Your task to perform on an android device: Open Google Chrome and click the shortcut for Amazon.com Image 0: 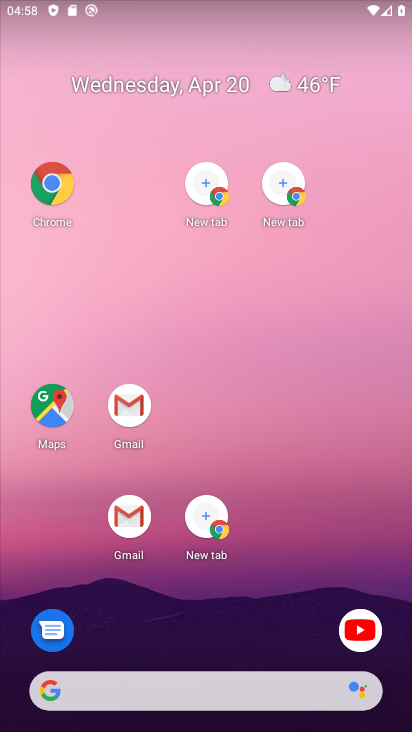
Step 0: drag from (255, 562) to (140, 88)
Your task to perform on an android device: Open Google Chrome and click the shortcut for Amazon.com Image 1: 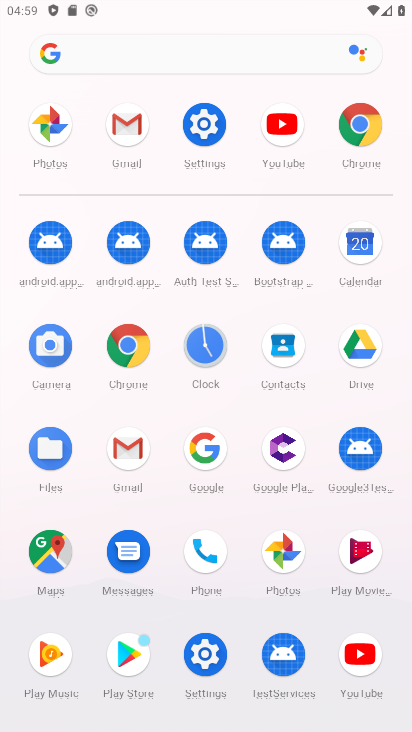
Step 1: click (362, 89)
Your task to perform on an android device: Open Google Chrome and click the shortcut for Amazon.com Image 2: 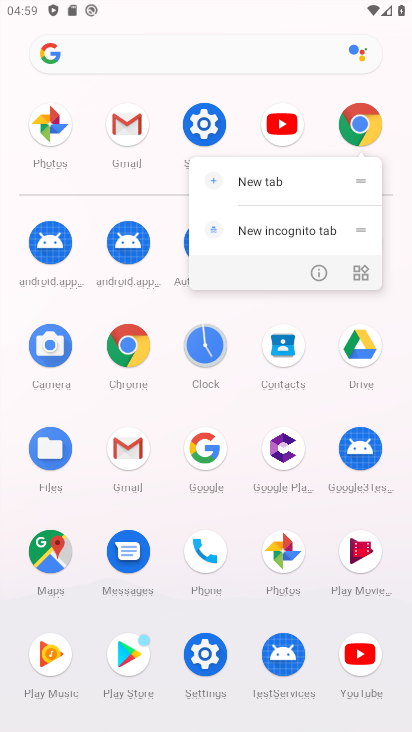
Step 2: click (361, 113)
Your task to perform on an android device: Open Google Chrome and click the shortcut for Amazon.com Image 3: 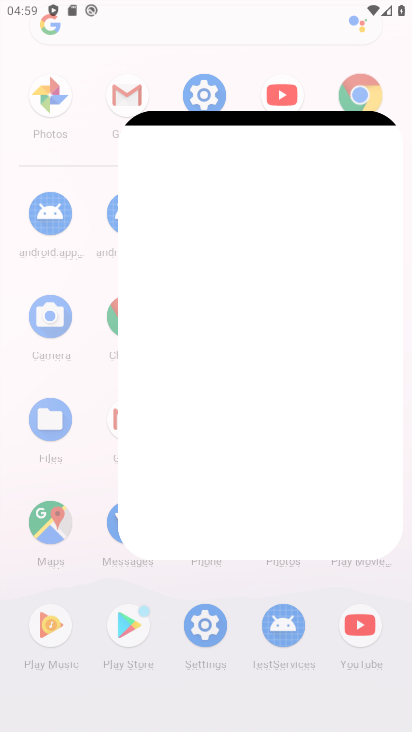
Step 3: click (361, 113)
Your task to perform on an android device: Open Google Chrome and click the shortcut for Amazon.com Image 4: 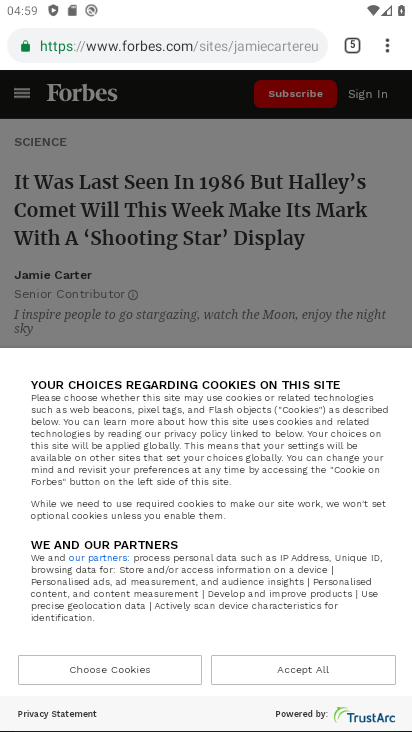
Step 4: drag from (387, 47) to (222, 620)
Your task to perform on an android device: Open Google Chrome and click the shortcut for Amazon.com Image 5: 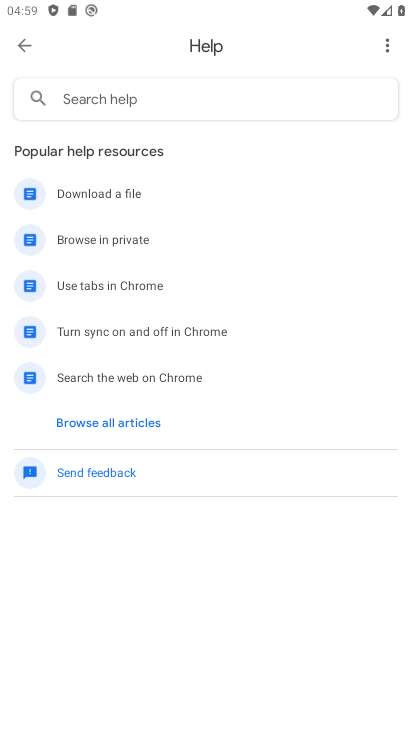
Step 5: press home button
Your task to perform on an android device: Open Google Chrome and click the shortcut for Amazon.com Image 6: 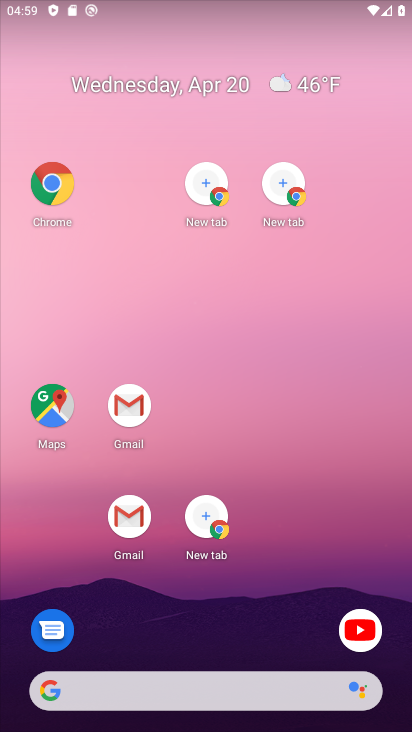
Step 6: drag from (281, 388) to (255, 4)
Your task to perform on an android device: Open Google Chrome and click the shortcut for Amazon.com Image 7: 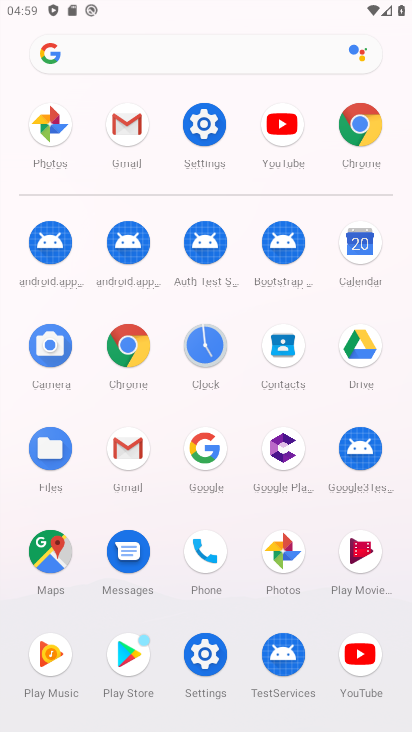
Step 7: click (357, 130)
Your task to perform on an android device: Open Google Chrome and click the shortcut for Amazon.com Image 8: 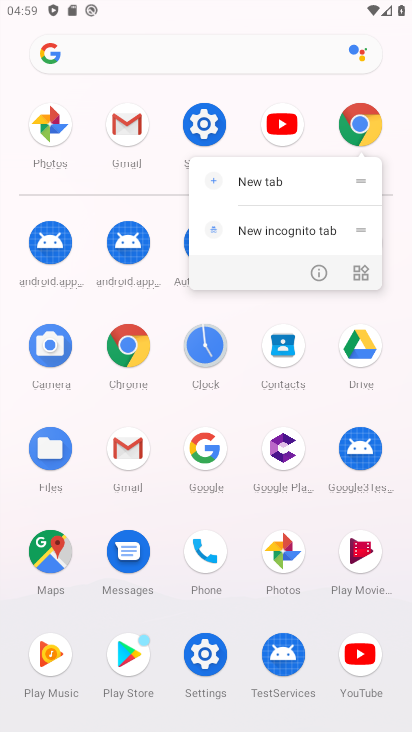
Step 8: click (357, 130)
Your task to perform on an android device: Open Google Chrome and click the shortcut for Amazon.com Image 9: 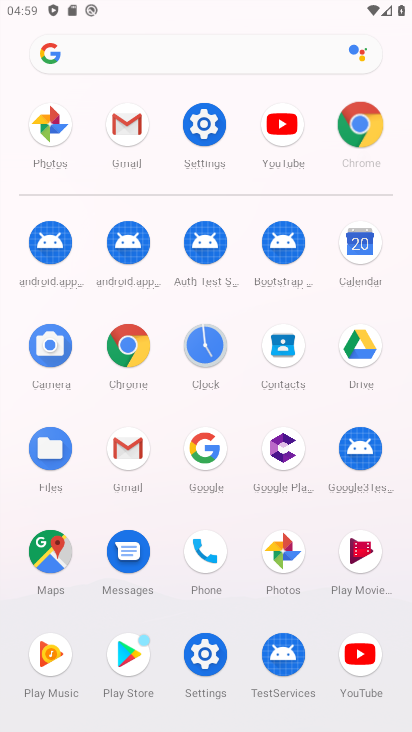
Step 9: click (357, 130)
Your task to perform on an android device: Open Google Chrome and click the shortcut for Amazon.com Image 10: 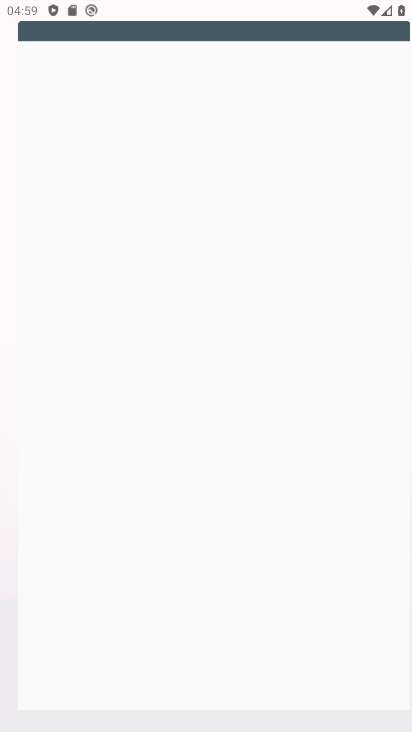
Step 10: click (357, 130)
Your task to perform on an android device: Open Google Chrome and click the shortcut for Amazon.com Image 11: 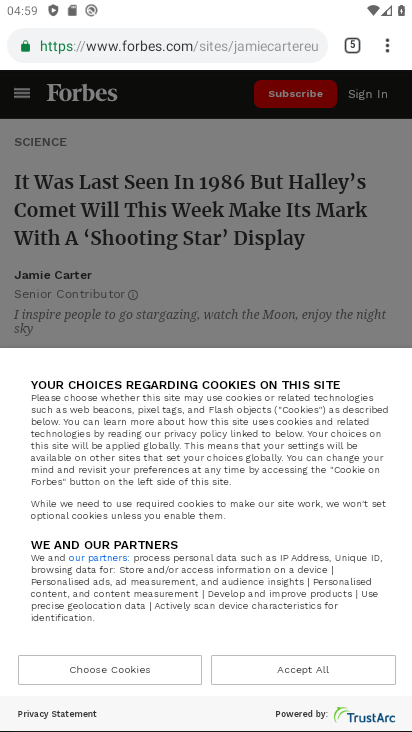
Step 11: drag from (385, 39) to (225, 141)
Your task to perform on an android device: Open Google Chrome and click the shortcut for Amazon.com Image 12: 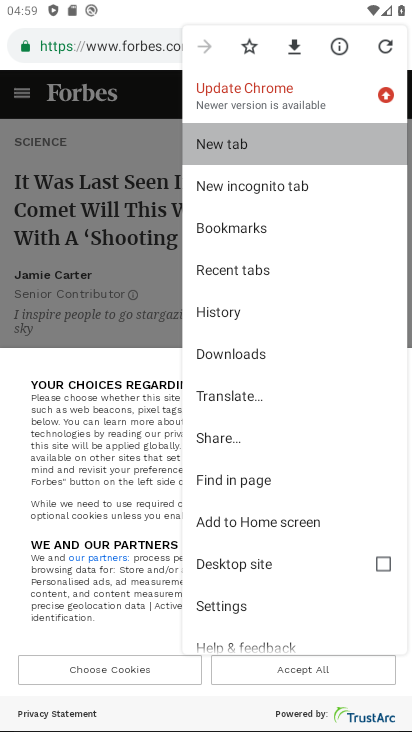
Step 12: click (225, 141)
Your task to perform on an android device: Open Google Chrome and click the shortcut for Amazon.com Image 13: 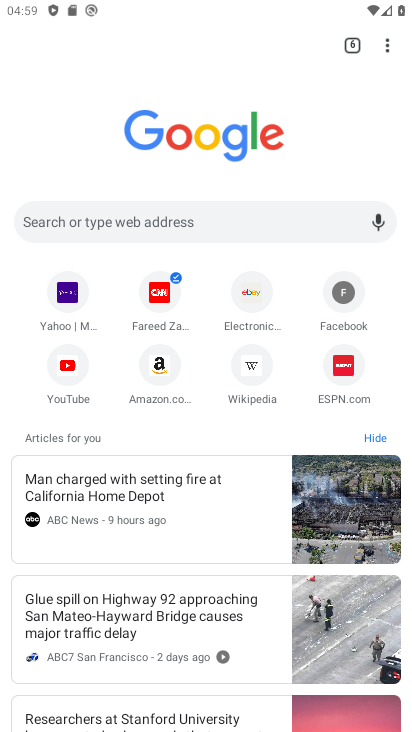
Step 13: click (150, 368)
Your task to perform on an android device: Open Google Chrome and click the shortcut for Amazon.com Image 14: 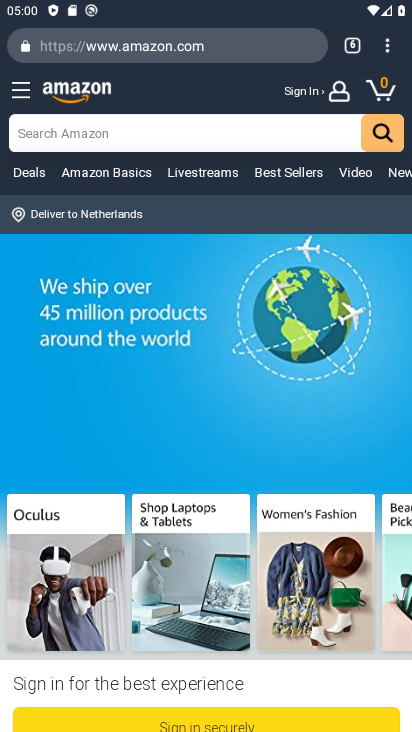
Step 14: task complete